Your task to perform on an android device: check out phone information Image 0: 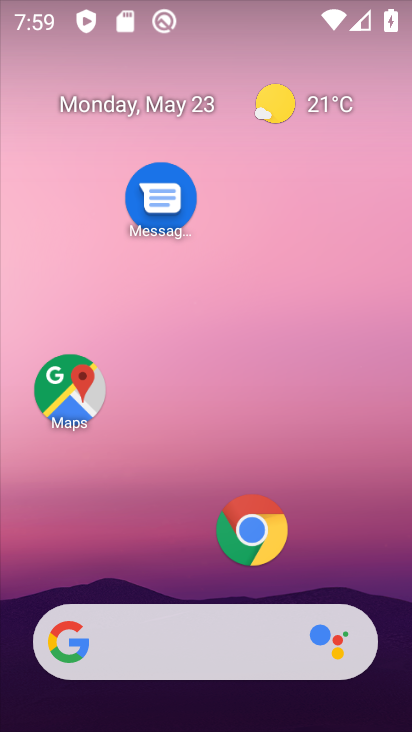
Step 0: drag from (166, 587) to (183, 196)
Your task to perform on an android device: check out phone information Image 1: 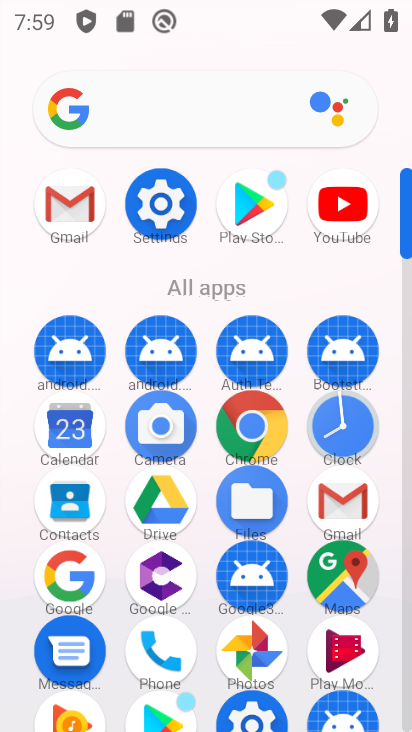
Step 1: click (148, 195)
Your task to perform on an android device: check out phone information Image 2: 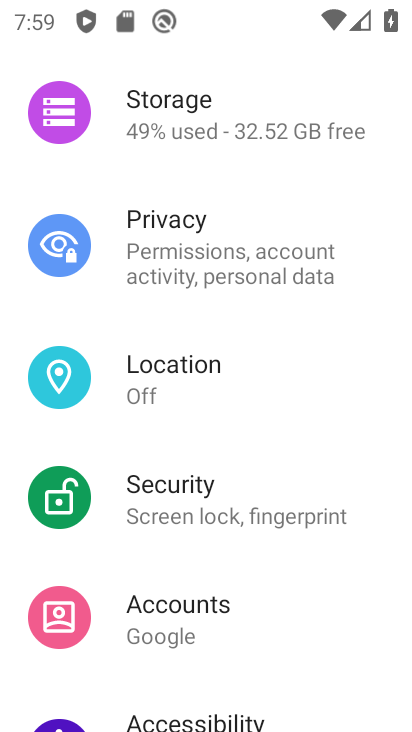
Step 2: drag from (135, 646) to (159, 104)
Your task to perform on an android device: check out phone information Image 3: 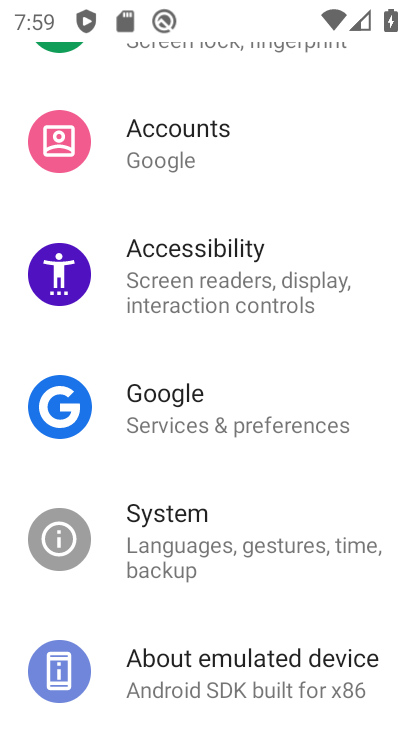
Step 3: drag from (187, 674) to (207, 272)
Your task to perform on an android device: check out phone information Image 4: 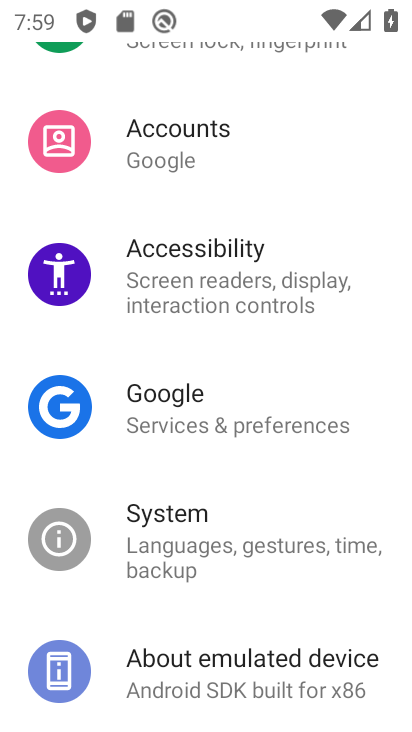
Step 4: click (236, 676)
Your task to perform on an android device: check out phone information Image 5: 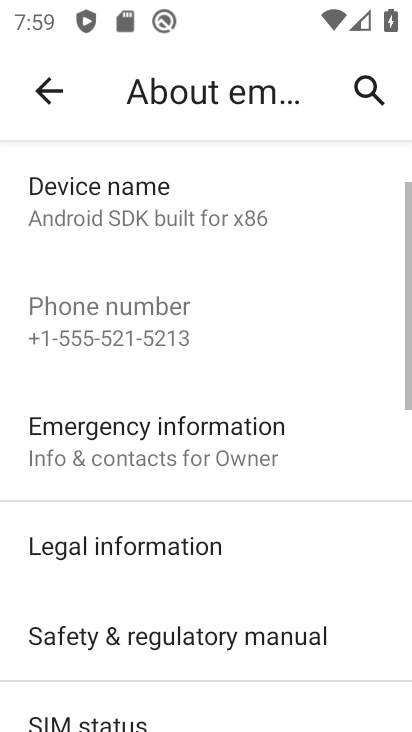
Step 5: task complete